Your task to perform on an android device: Go to battery settings Image 0: 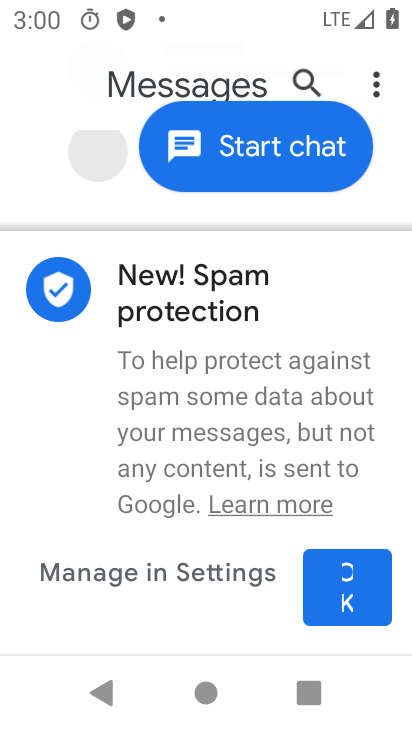
Step 0: drag from (233, 556) to (230, 365)
Your task to perform on an android device: Go to battery settings Image 1: 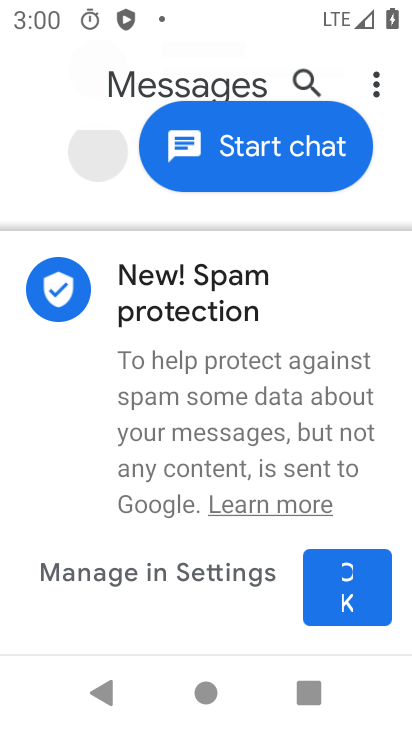
Step 1: press home button
Your task to perform on an android device: Go to battery settings Image 2: 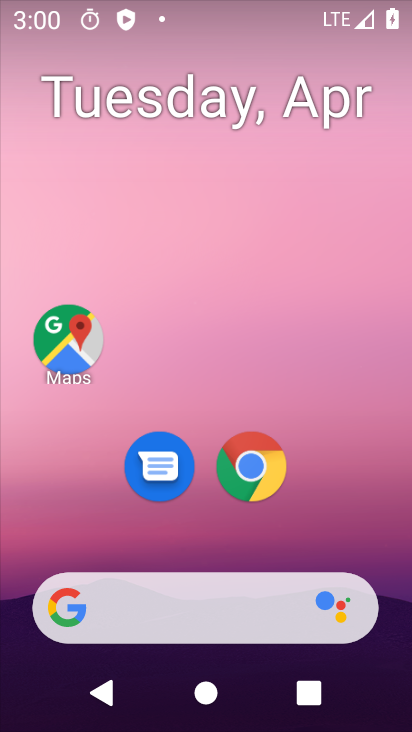
Step 2: drag from (226, 529) to (192, 77)
Your task to perform on an android device: Go to battery settings Image 3: 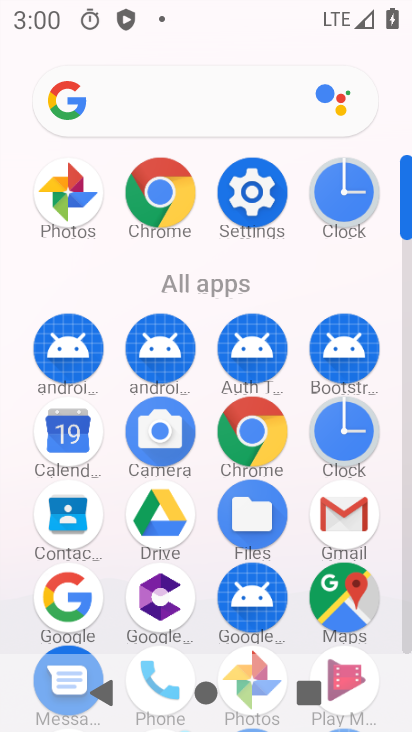
Step 3: click (265, 207)
Your task to perform on an android device: Go to battery settings Image 4: 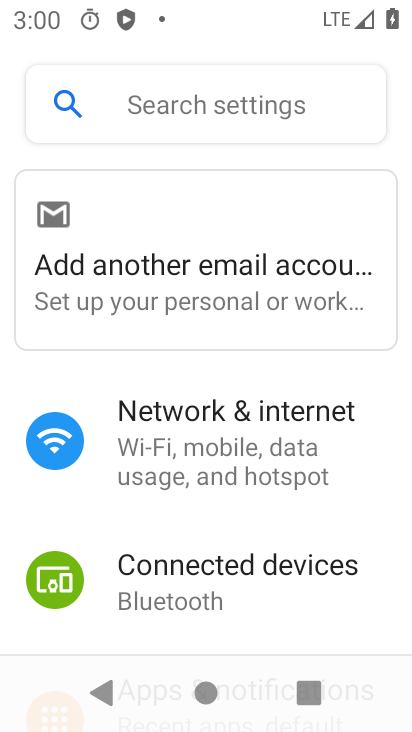
Step 4: drag from (247, 534) to (178, 19)
Your task to perform on an android device: Go to battery settings Image 5: 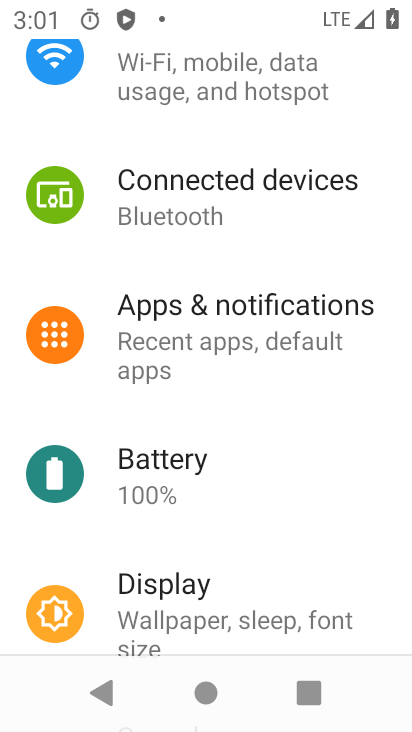
Step 5: click (143, 460)
Your task to perform on an android device: Go to battery settings Image 6: 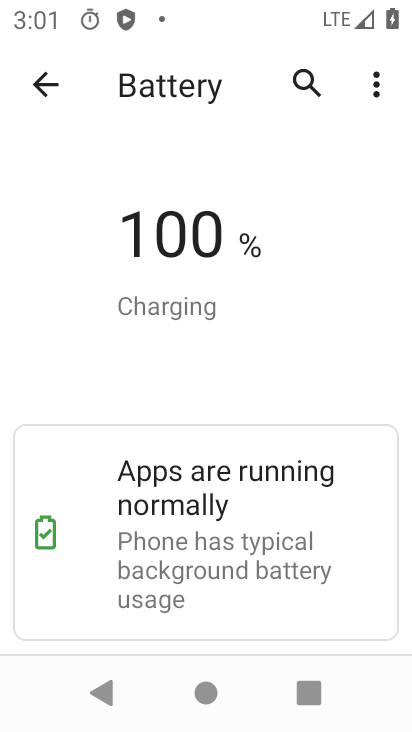
Step 6: task complete